Your task to perform on an android device: What's on my calendar tomorrow? Image 0: 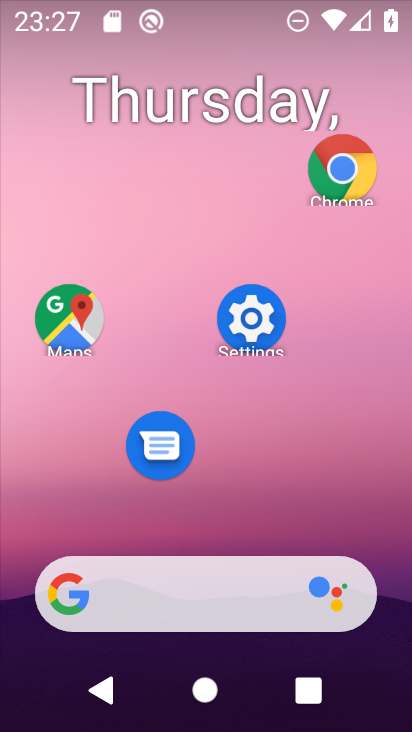
Step 0: drag from (187, 500) to (273, 187)
Your task to perform on an android device: What's on my calendar tomorrow? Image 1: 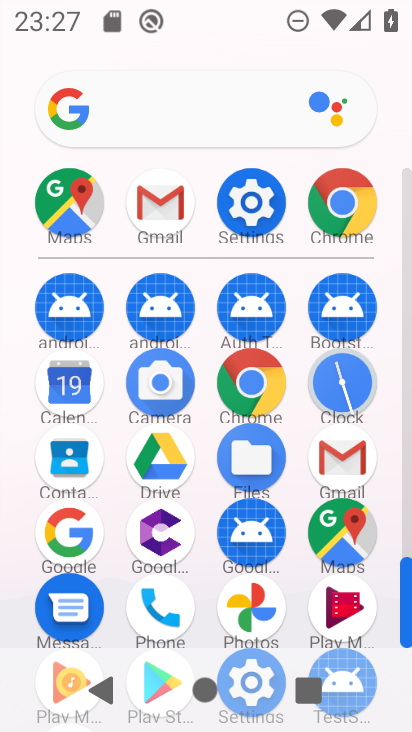
Step 1: click (58, 369)
Your task to perform on an android device: What's on my calendar tomorrow? Image 2: 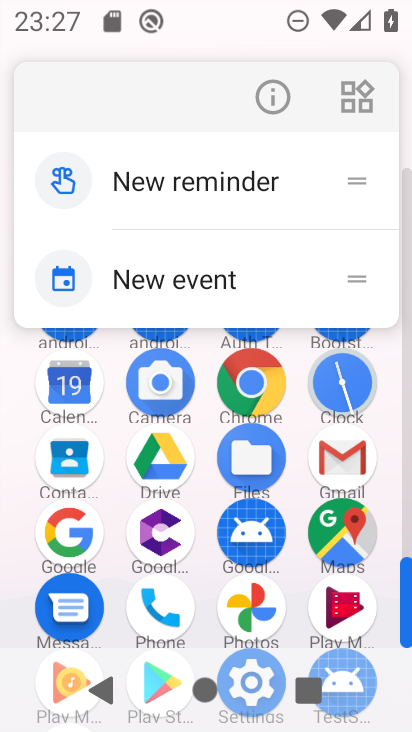
Step 2: click (279, 104)
Your task to perform on an android device: What's on my calendar tomorrow? Image 3: 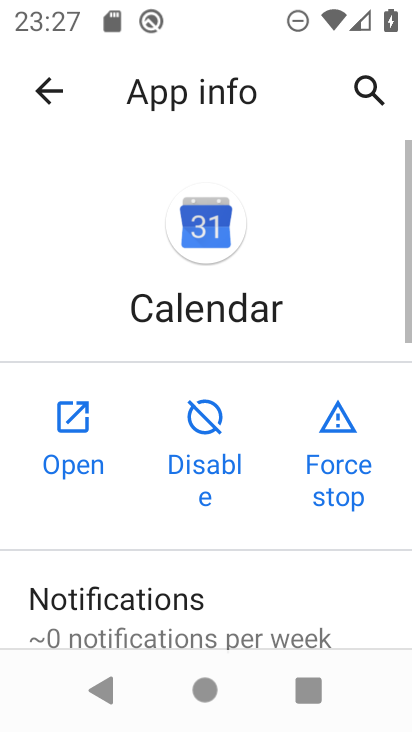
Step 3: click (63, 420)
Your task to perform on an android device: What's on my calendar tomorrow? Image 4: 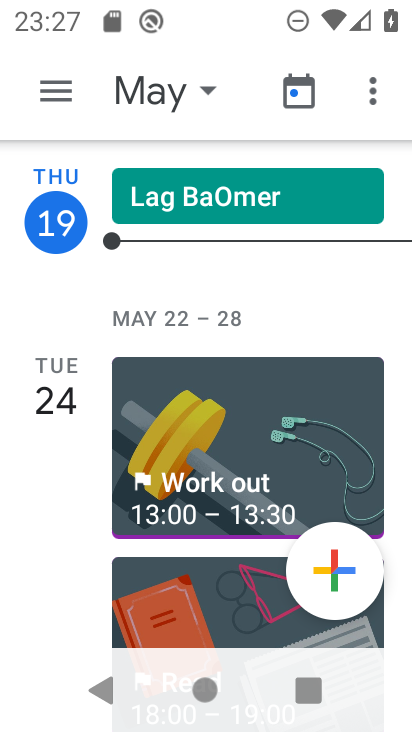
Step 4: click (187, 87)
Your task to perform on an android device: What's on my calendar tomorrow? Image 5: 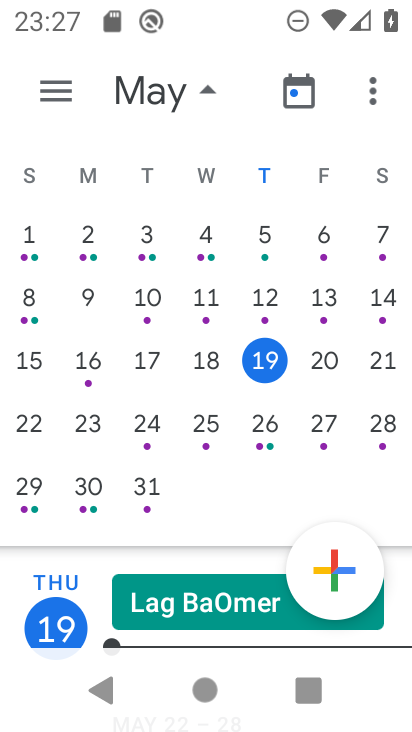
Step 5: click (320, 354)
Your task to perform on an android device: What's on my calendar tomorrow? Image 6: 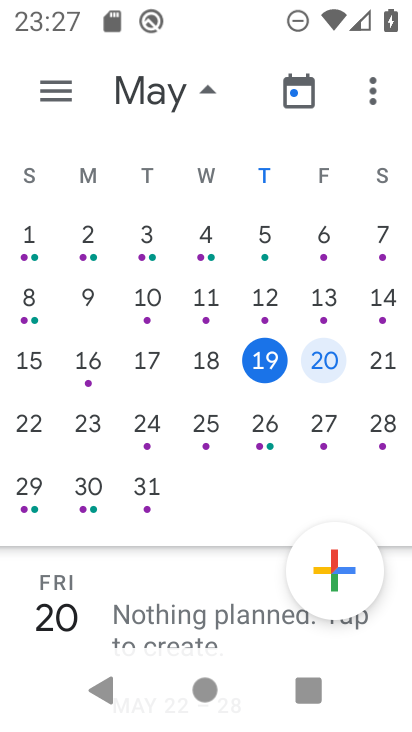
Step 6: task complete